Your task to perform on an android device: change notifications settings Image 0: 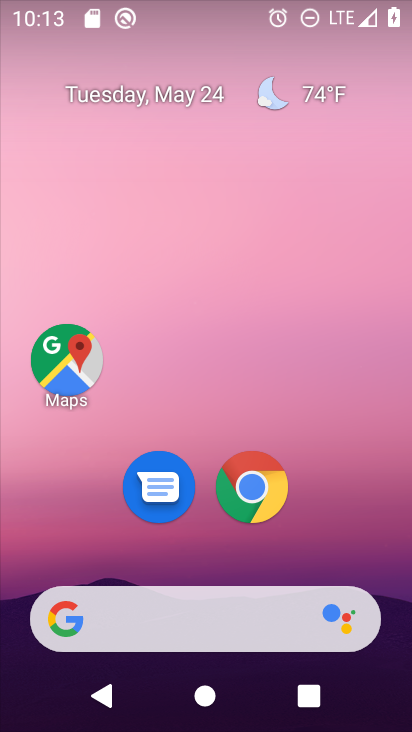
Step 0: drag from (375, 590) to (308, 4)
Your task to perform on an android device: change notifications settings Image 1: 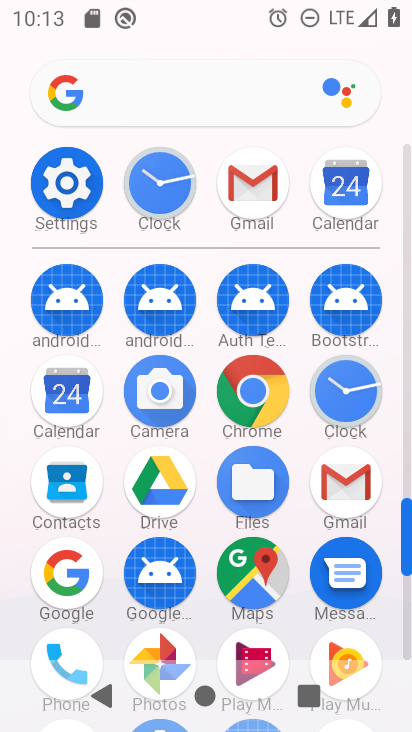
Step 1: click (67, 189)
Your task to perform on an android device: change notifications settings Image 2: 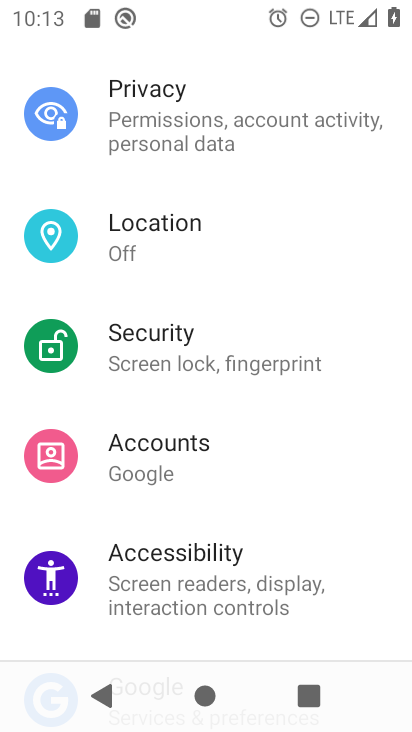
Step 2: drag from (294, 204) to (312, 519)
Your task to perform on an android device: change notifications settings Image 3: 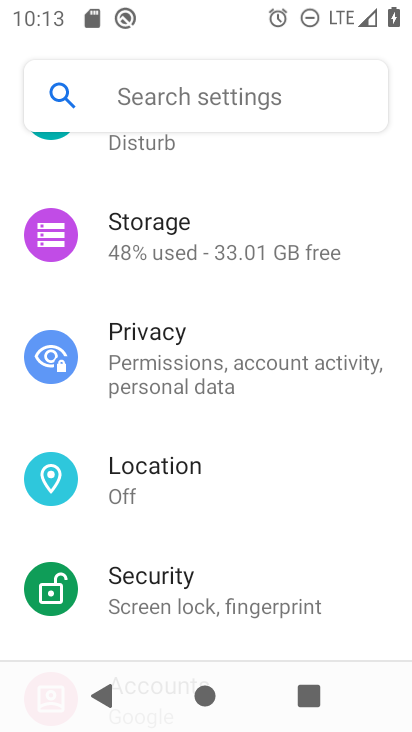
Step 3: drag from (292, 211) to (304, 550)
Your task to perform on an android device: change notifications settings Image 4: 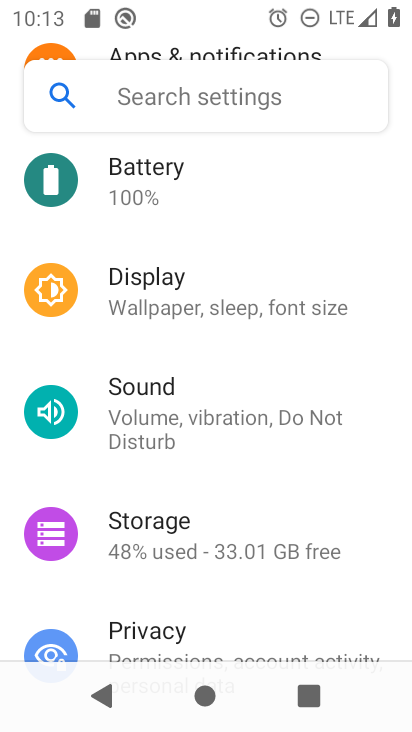
Step 4: drag from (267, 212) to (279, 502)
Your task to perform on an android device: change notifications settings Image 5: 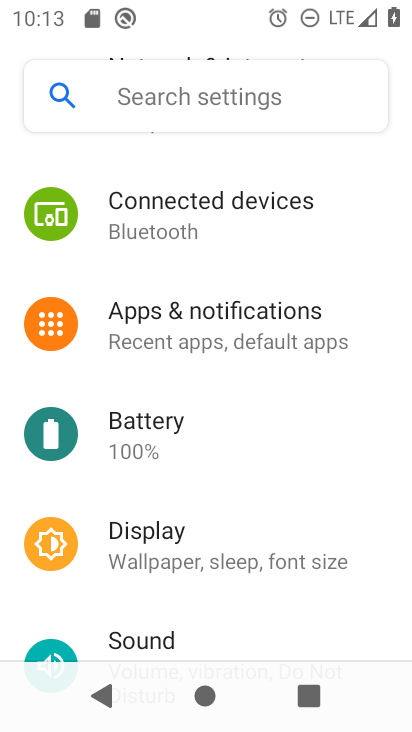
Step 5: click (168, 336)
Your task to perform on an android device: change notifications settings Image 6: 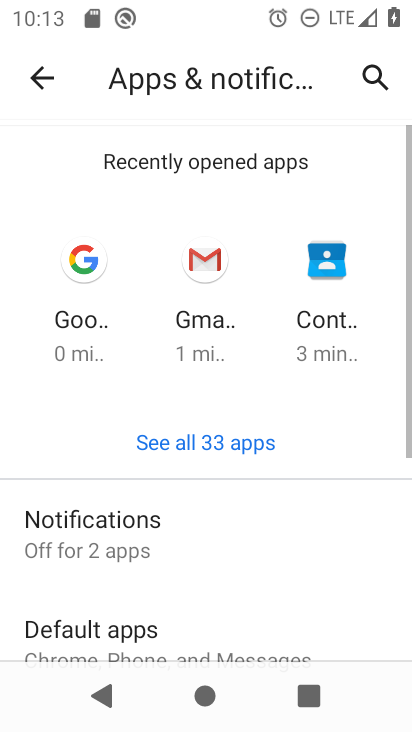
Step 6: click (116, 522)
Your task to perform on an android device: change notifications settings Image 7: 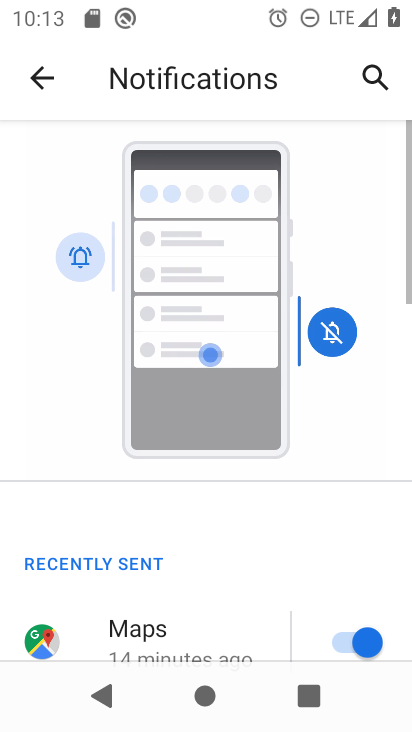
Step 7: drag from (205, 605) to (206, 94)
Your task to perform on an android device: change notifications settings Image 8: 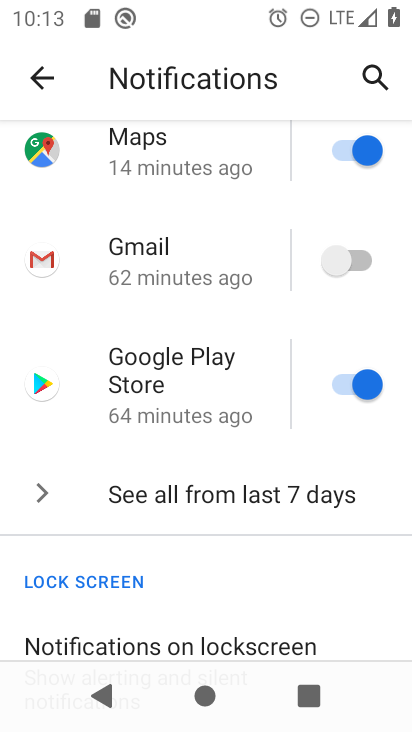
Step 8: drag from (192, 523) to (172, 169)
Your task to perform on an android device: change notifications settings Image 9: 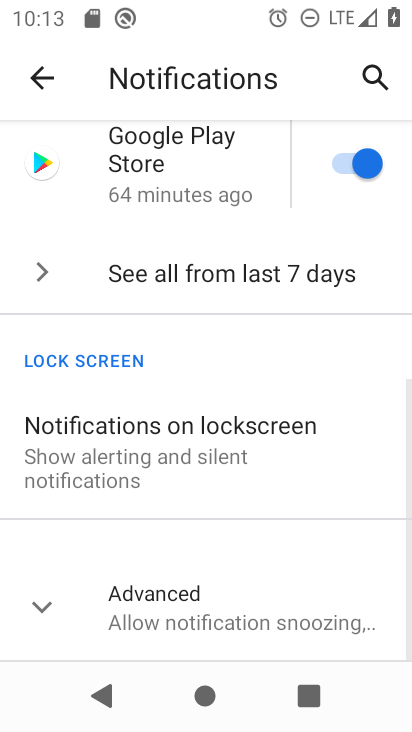
Step 9: click (169, 274)
Your task to perform on an android device: change notifications settings Image 10: 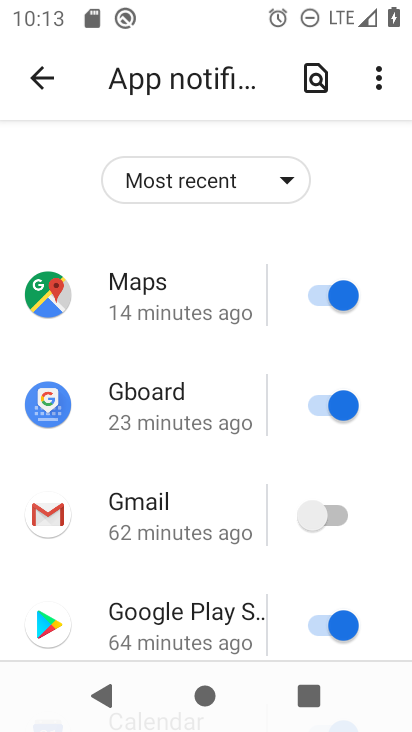
Step 10: click (288, 181)
Your task to perform on an android device: change notifications settings Image 11: 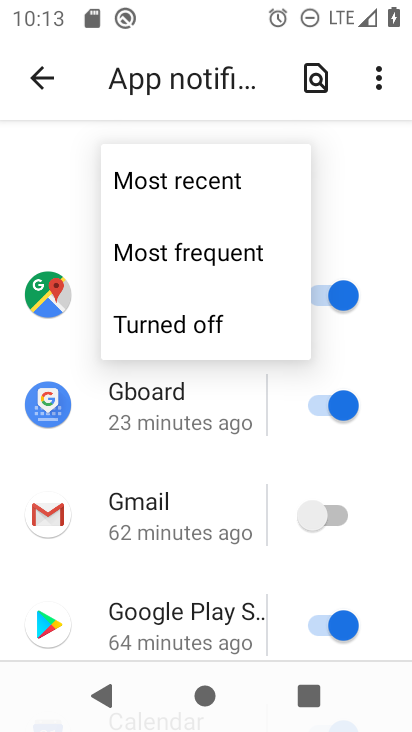
Step 11: click (210, 254)
Your task to perform on an android device: change notifications settings Image 12: 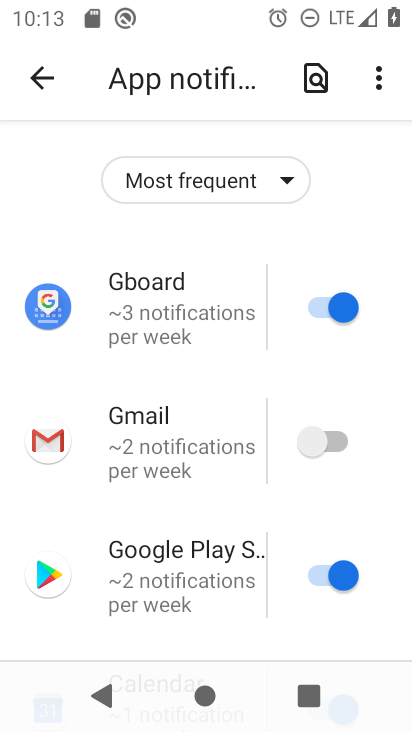
Step 12: task complete